Your task to perform on an android device: all mails in gmail Image 0: 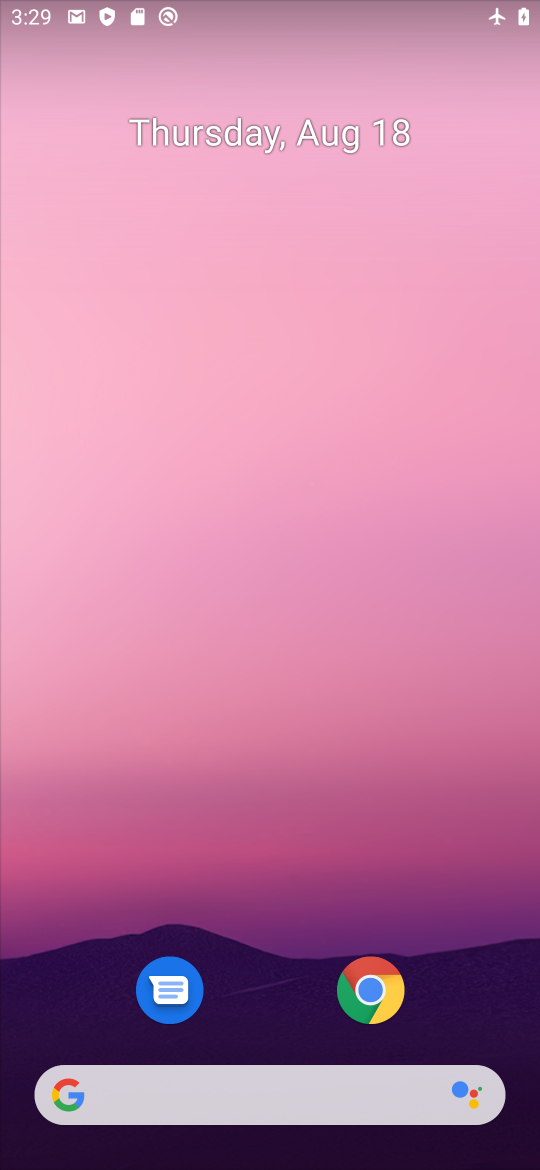
Step 0: drag from (245, 967) to (339, 2)
Your task to perform on an android device: all mails in gmail Image 1: 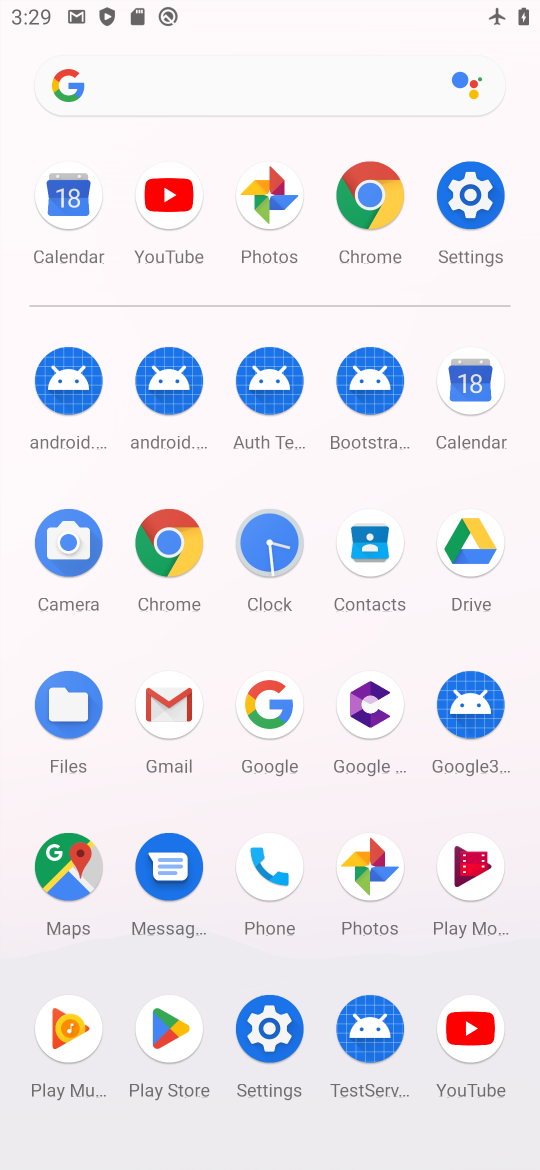
Step 1: click (170, 709)
Your task to perform on an android device: all mails in gmail Image 2: 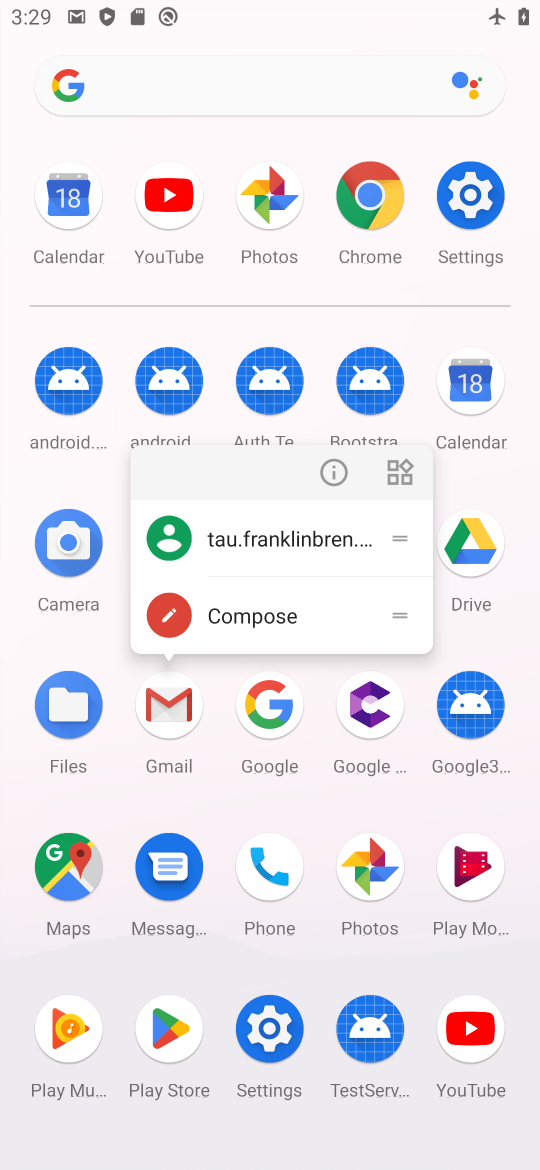
Step 2: click (174, 702)
Your task to perform on an android device: all mails in gmail Image 3: 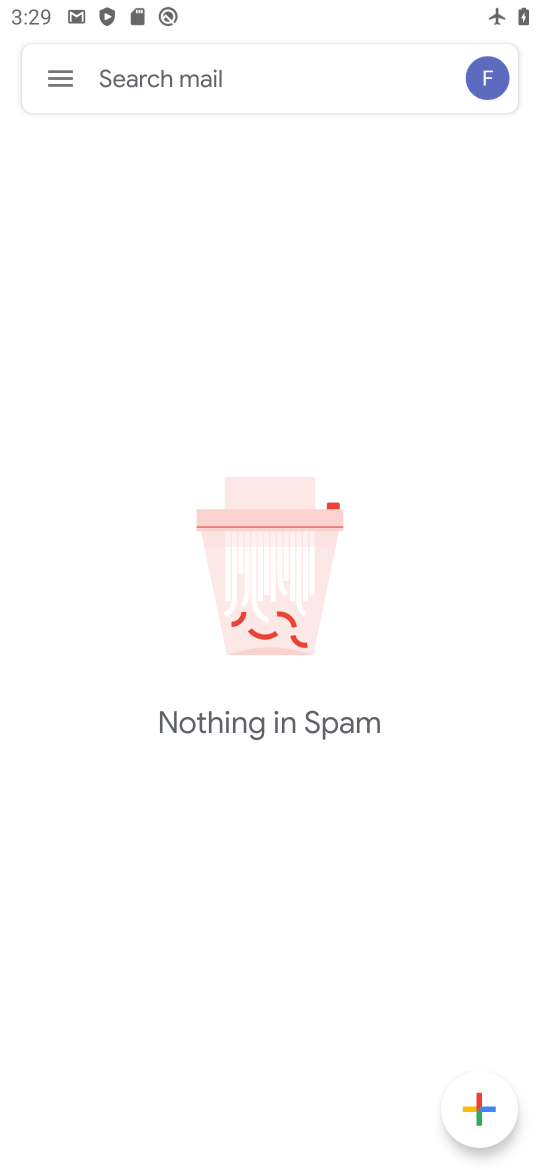
Step 3: click (58, 67)
Your task to perform on an android device: all mails in gmail Image 4: 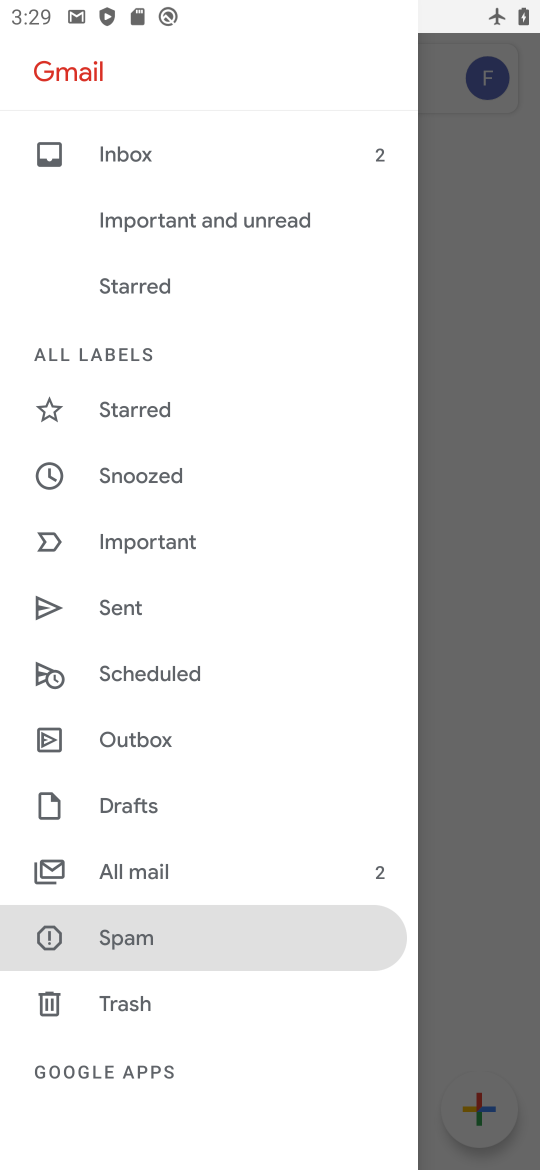
Step 4: click (113, 828)
Your task to perform on an android device: all mails in gmail Image 5: 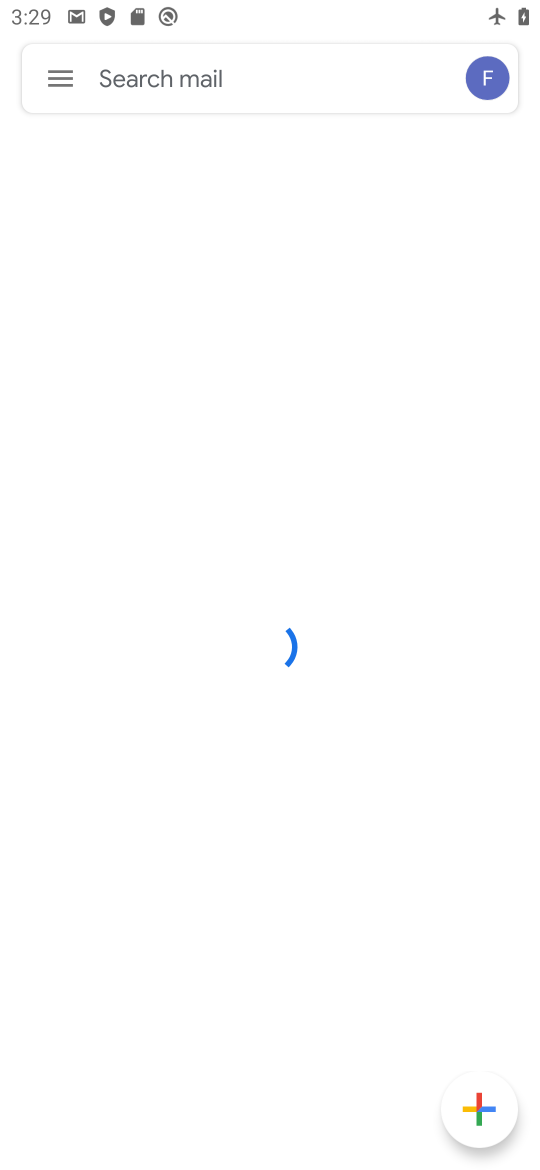
Step 5: click (68, 83)
Your task to perform on an android device: all mails in gmail Image 6: 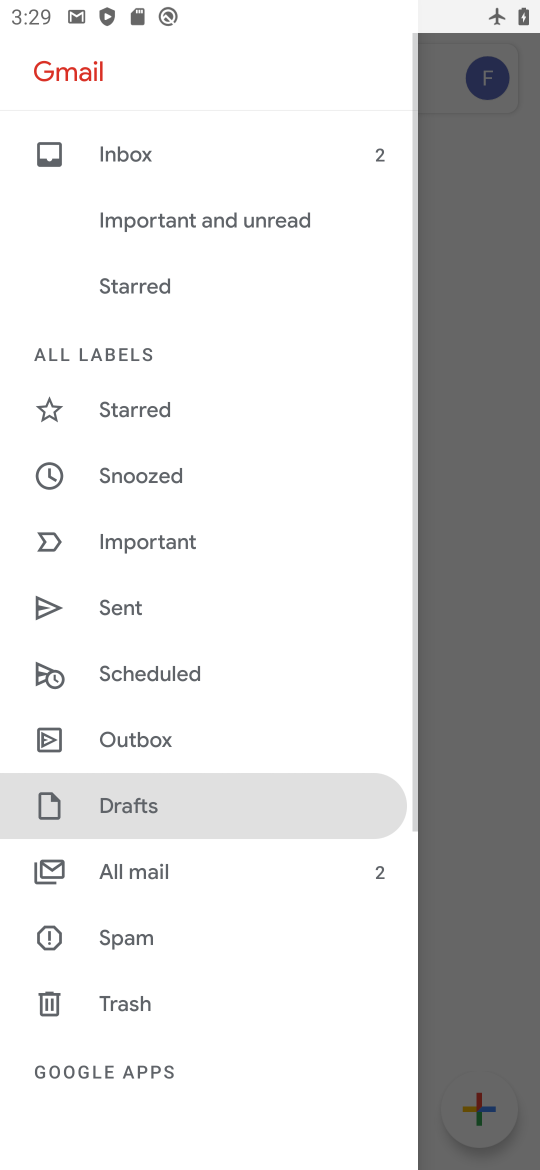
Step 6: click (104, 878)
Your task to perform on an android device: all mails in gmail Image 7: 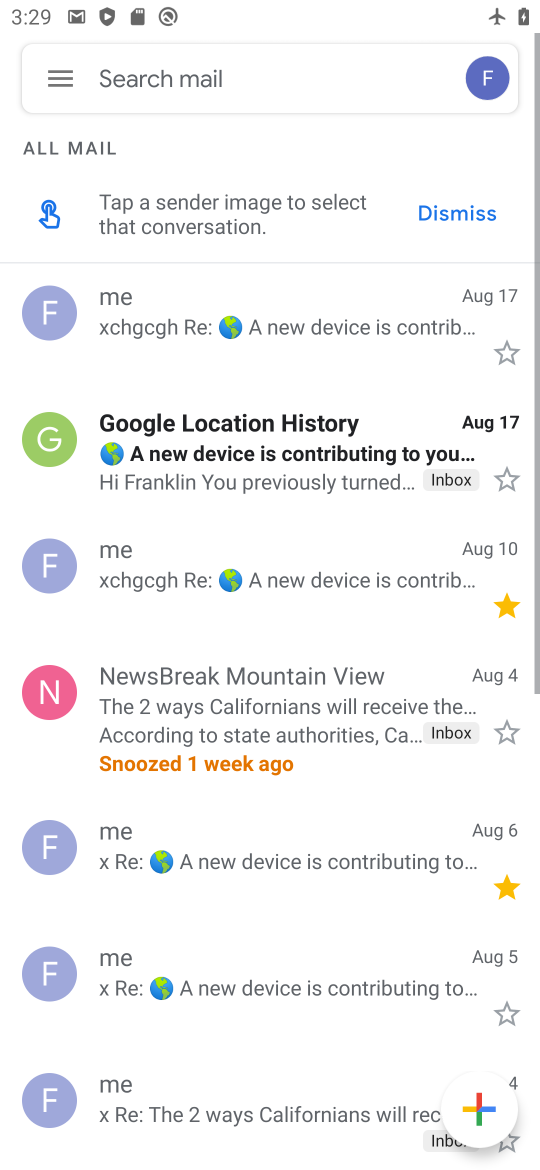
Step 7: task complete